Your task to perform on an android device: Go to Maps Image 0: 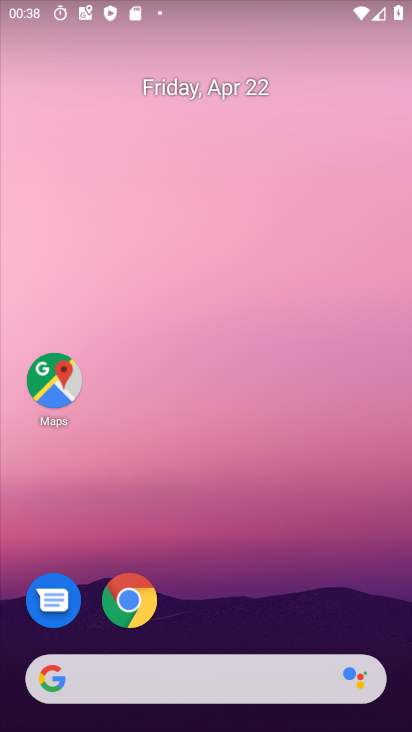
Step 0: click (54, 378)
Your task to perform on an android device: Go to Maps Image 1: 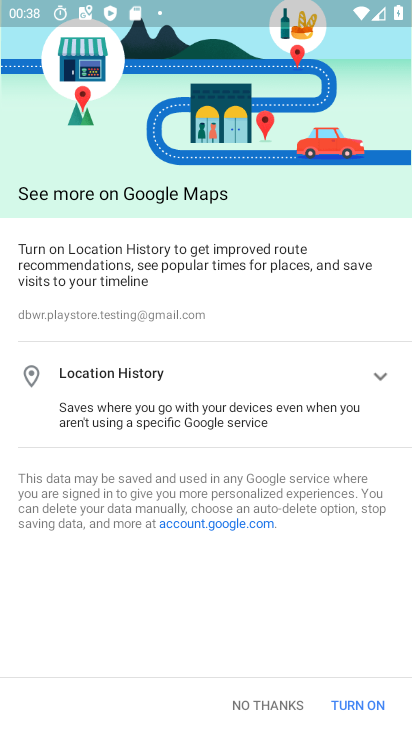
Step 1: click (350, 712)
Your task to perform on an android device: Go to Maps Image 2: 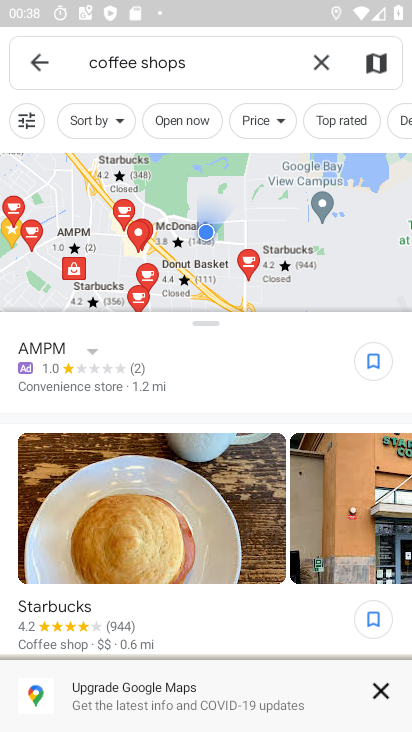
Step 2: task complete